Your task to perform on an android device: Go to Google maps Image 0: 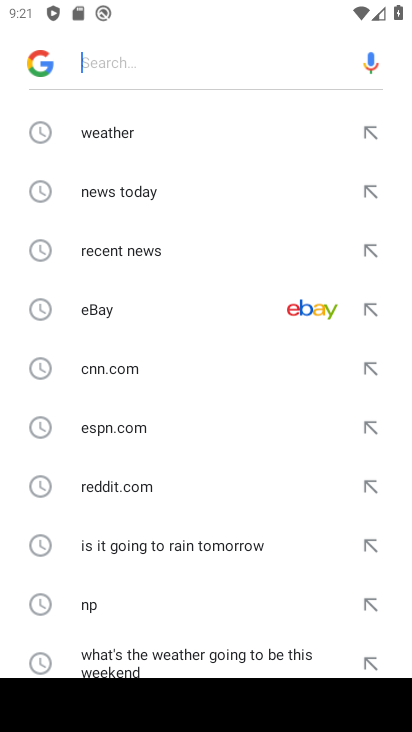
Step 0: press home button
Your task to perform on an android device: Go to Google maps Image 1: 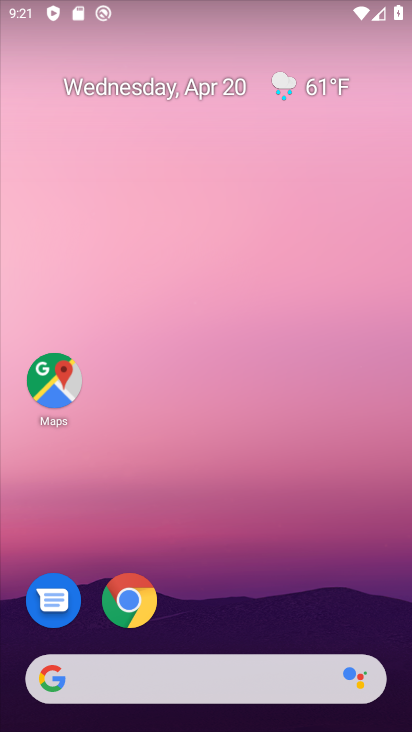
Step 1: click (34, 372)
Your task to perform on an android device: Go to Google maps Image 2: 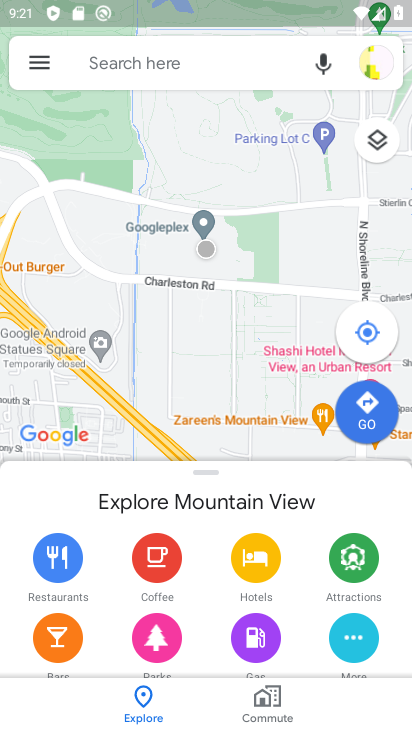
Step 2: task complete